Your task to perform on an android device: Open calendar and show me the third week of next month Image 0: 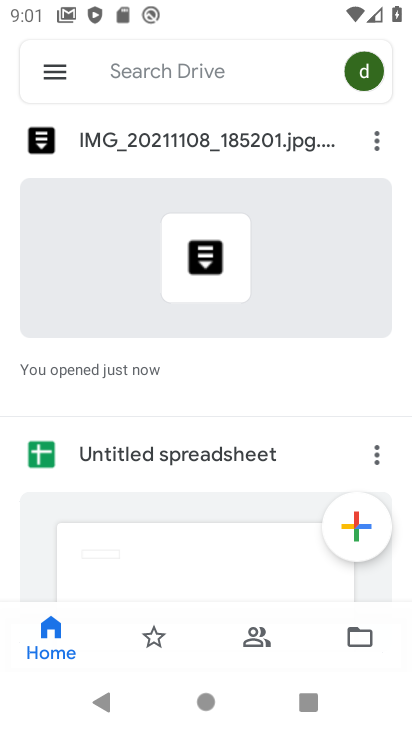
Step 0: press home button
Your task to perform on an android device: Open calendar and show me the third week of next month Image 1: 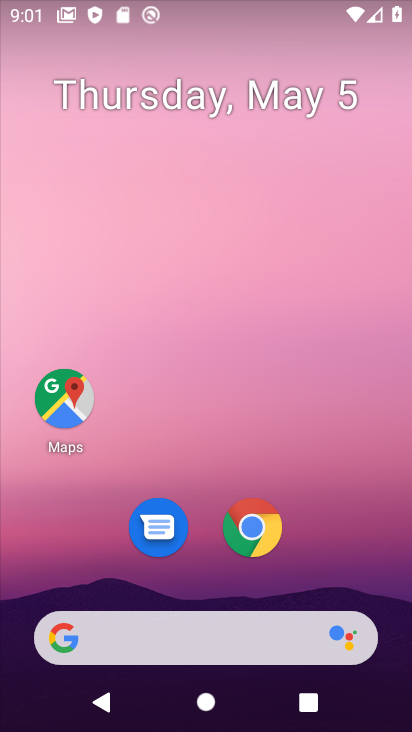
Step 1: drag from (337, 508) to (368, 141)
Your task to perform on an android device: Open calendar and show me the third week of next month Image 2: 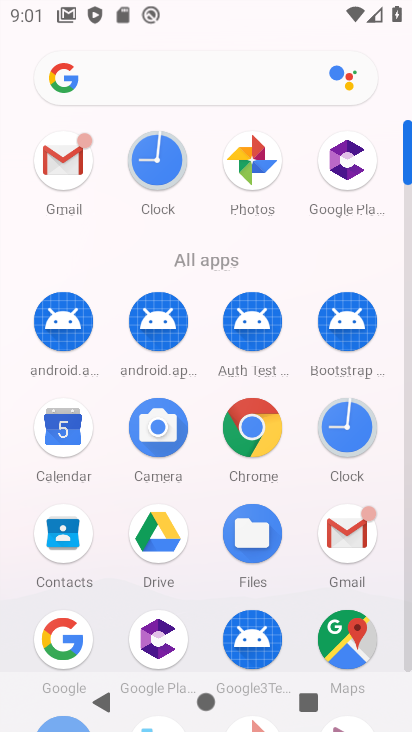
Step 2: click (70, 431)
Your task to perform on an android device: Open calendar and show me the third week of next month Image 3: 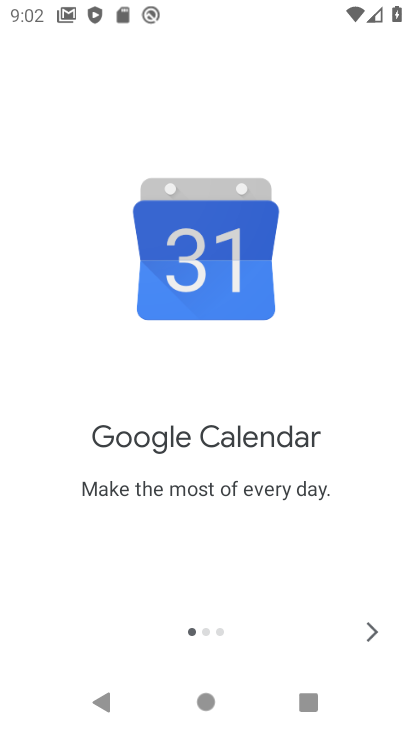
Step 3: click (374, 630)
Your task to perform on an android device: Open calendar and show me the third week of next month Image 4: 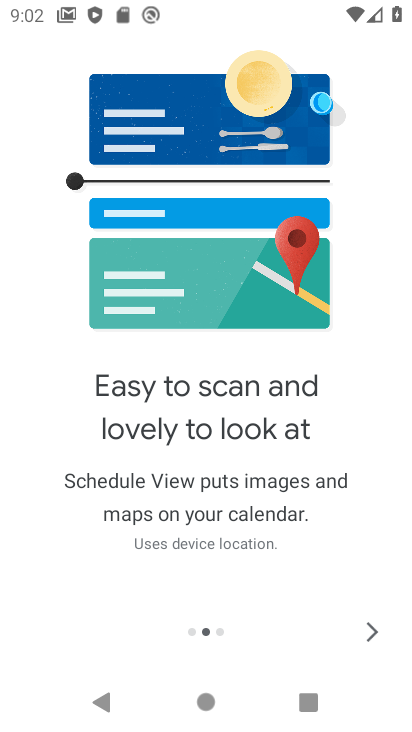
Step 4: click (374, 630)
Your task to perform on an android device: Open calendar and show me the third week of next month Image 5: 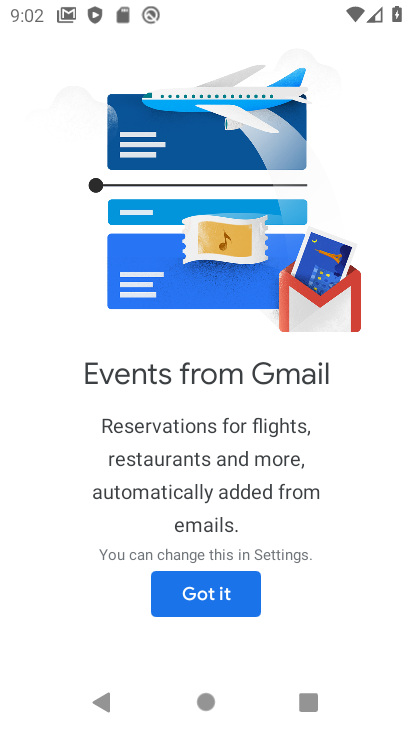
Step 5: click (225, 596)
Your task to perform on an android device: Open calendar and show me the third week of next month Image 6: 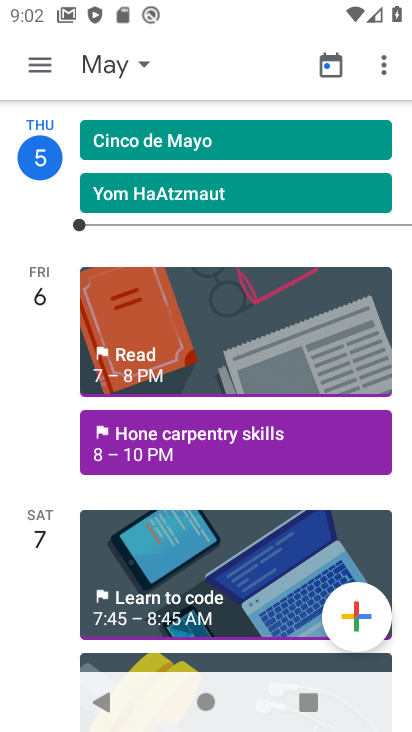
Step 6: click (30, 66)
Your task to perform on an android device: Open calendar and show me the third week of next month Image 7: 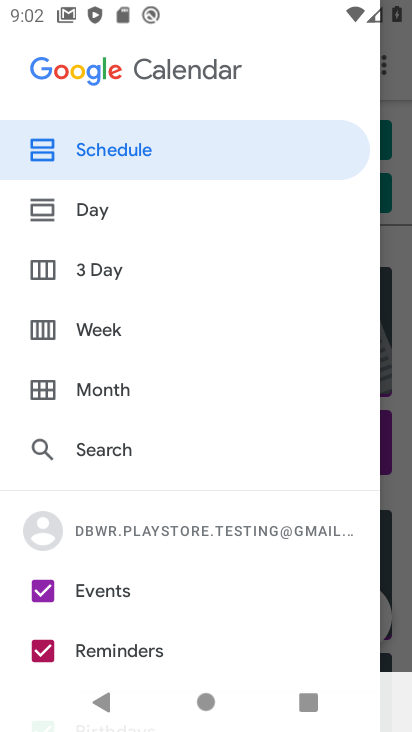
Step 7: click (402, 359)
Your task to perform on an android device: Open calendar and show me the third week of next month Image 8: 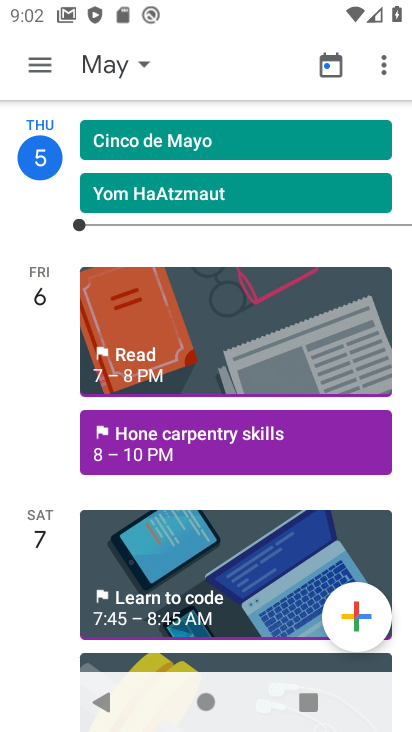
Step 8: click (141, 62)
Your task to perform on an android device: Open calendar and show me the third week of next month Image 9: 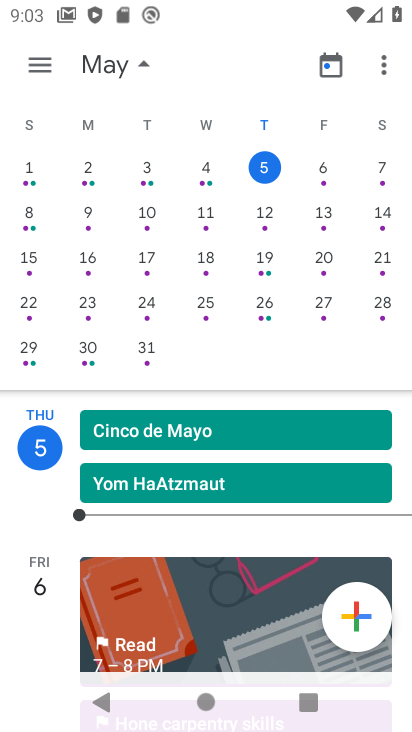
Step 9: click (265, 273)
Your task to perform on an android device: Open calendar and show me the third week of next month Image 10: 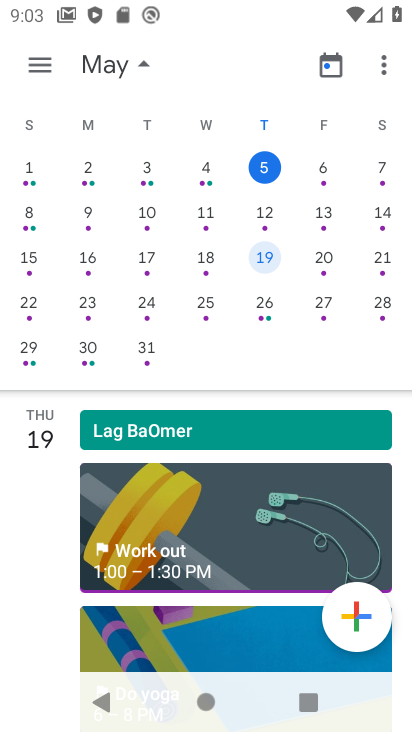
Step 10: task complete